Your task to perform on an android device: turn off sleep mode Image 0: 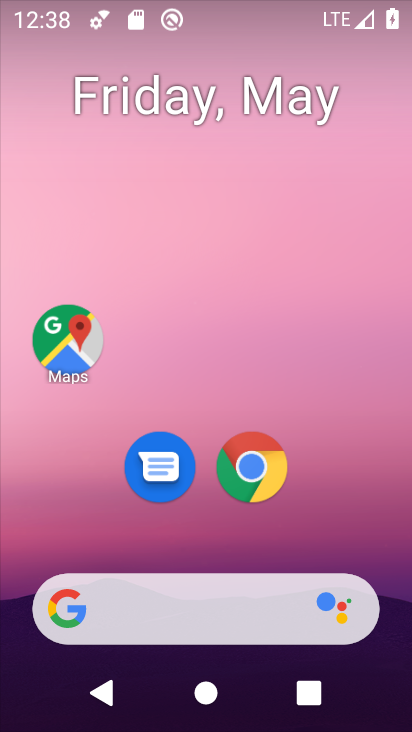
Step 0: click (372, 356)
Your task to perform on an android device: turn off sleep mode Image 1: 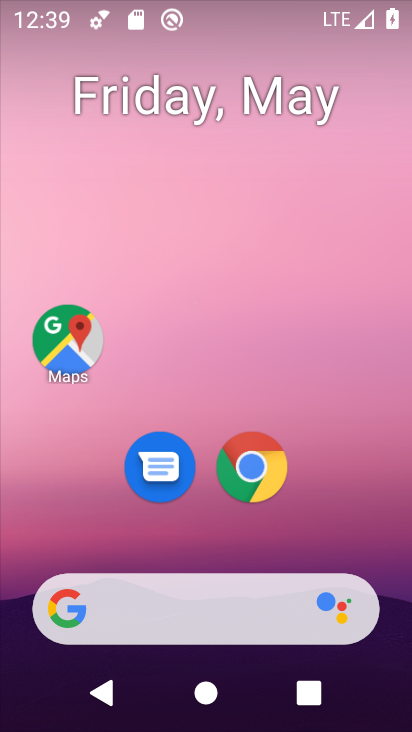
Step 1: drag from (364, 527) to (348, 12)
Your task to perform on an android device: turn off sleep mode Image 2: 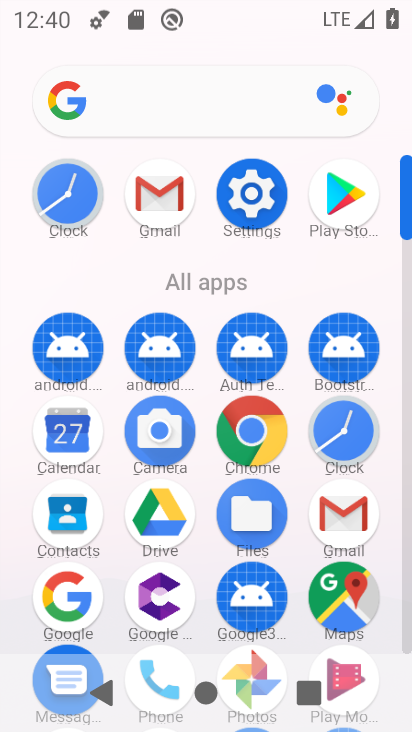
Step 2: click (244, 209)
Your task to perform on an android device: turn off sleep mode Image 3: 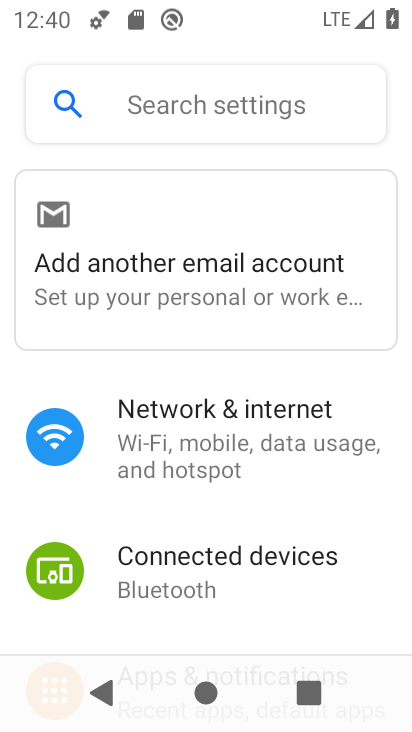
Step 3: drag from (278, 494) to (305, 182)
Your task to perform on an android device: turn off sleep mode Image 4: 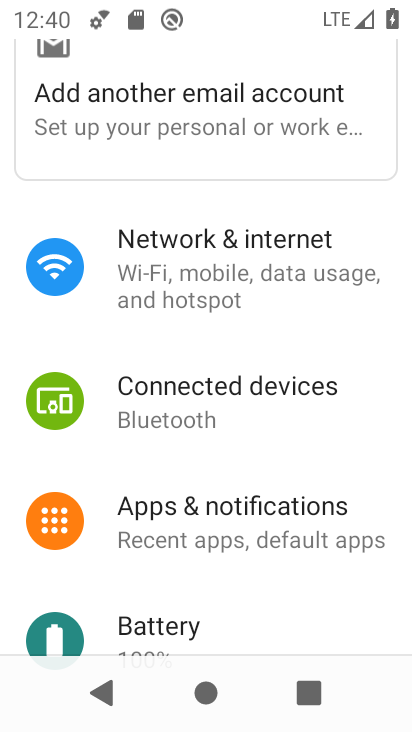
Step 4: drag from (204, 558) to (214, 148)
Your task to perform on an android device: turn off sleep mode Image 5: 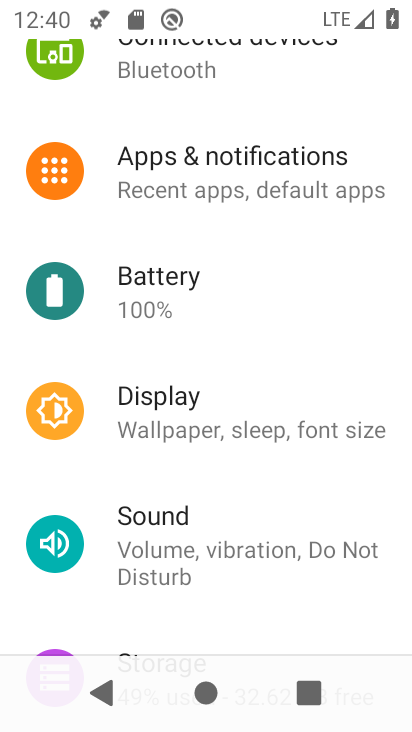
Step 5: drag from (205, 582) to (230, 358)
Your task to perform on an android device: turn off sleep mode Image 6: 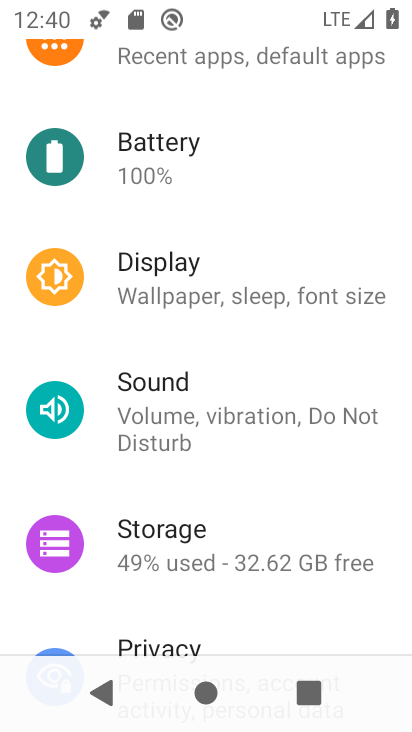
Step 6: drag from (225, 582) to (237, 244)
Your task to perform on an android device: turn off sleep mode Image 7: 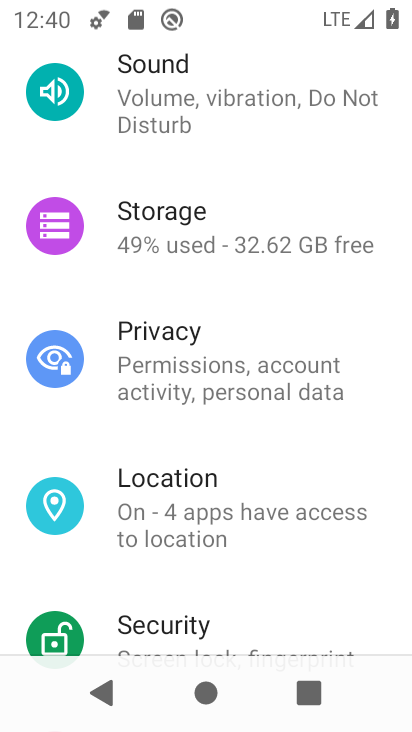
Step 7: drag from (225, 311) to (213, 579)
Your task to perform on an android device: turn off sleep mode Image 8: 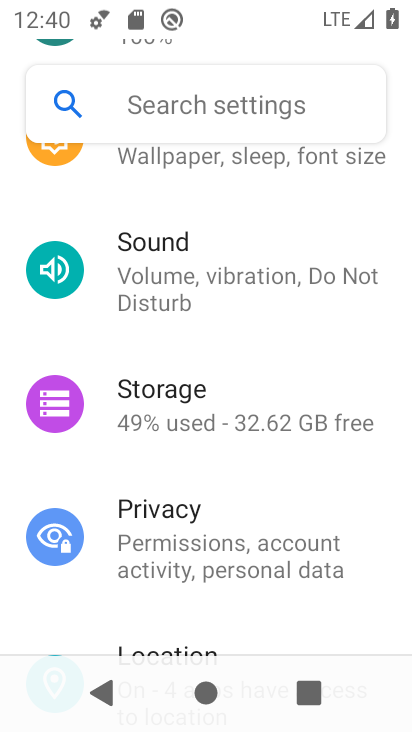
Step 8: drag from (266, 587) to (283, 175)
Your task to perform on an android device: turn off sleep mode Image 9: 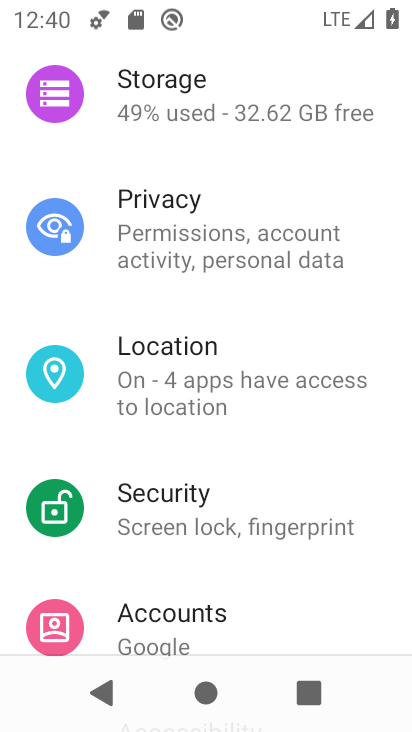
Step 9: drag from (243, 590) to (248, 203)
Your task to perform on an android device: turn off sleep mode Image 10: 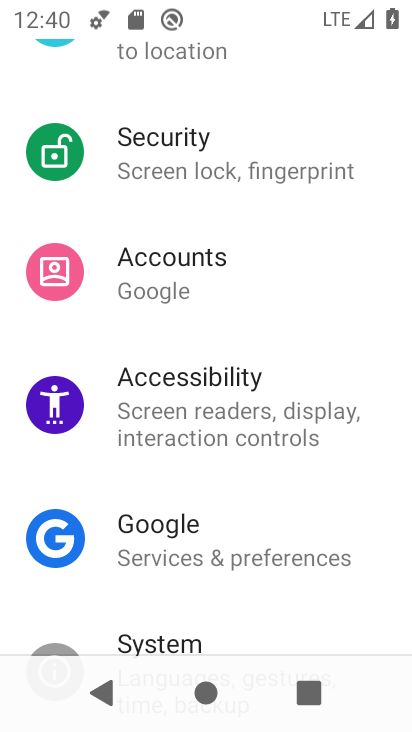
Step 10: drag from (283, 163) to (309, 532)
Your task to perform on an android device: turn off sleep mode Image 11: 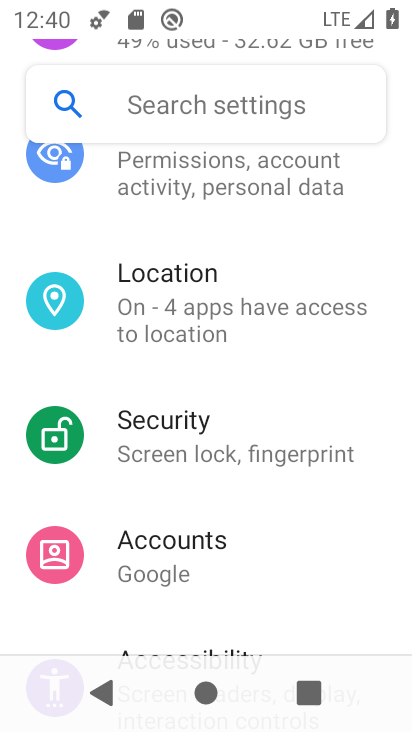
Step 11: drag from (239, 266) to (230, 570)
Your task to perform on an android device: turn off sleep mode Image 12: 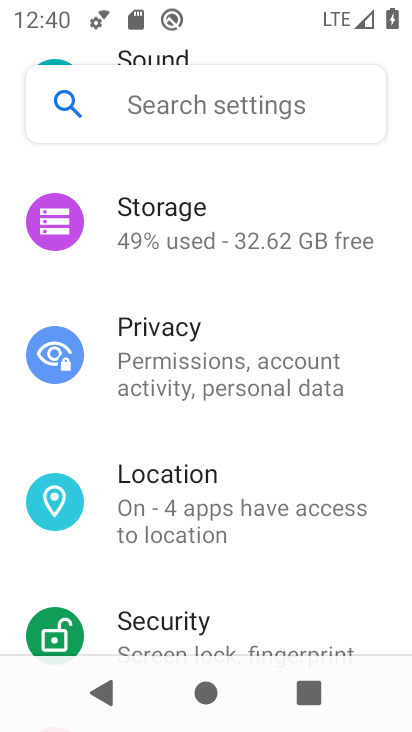
Step 12: drag from (237, 224) to (249, 603)
Your task to perform on an android device: turn off sleep mode Image 13: 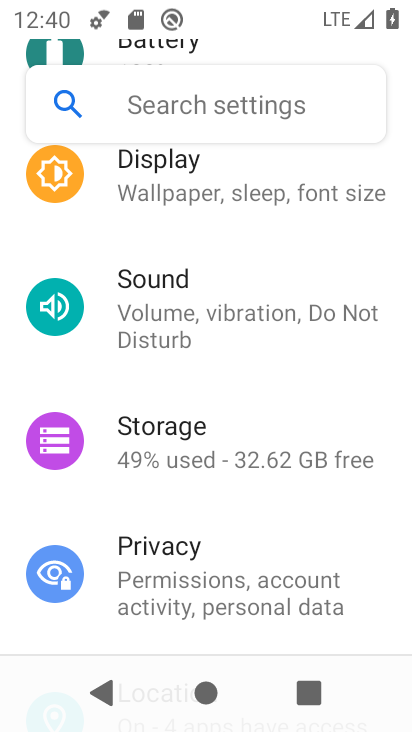
Step 13: drag from (216, 218) to (189, 487)
Your task to perform on an android device: turn off sleep mode Image 14: 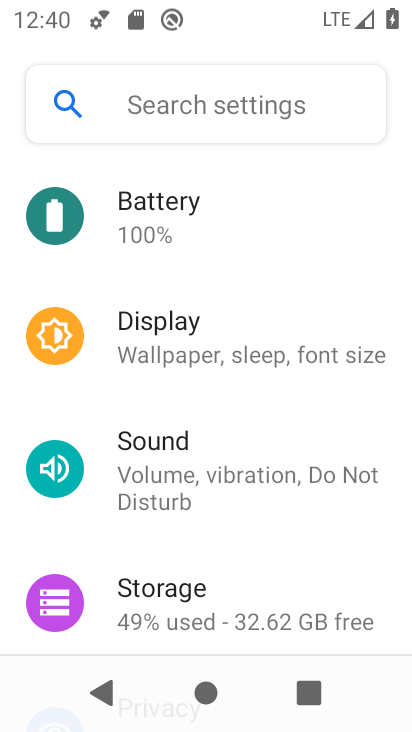
Step 14: click (219, 342)
Your task to perform on an android device: turn off sleep mode Image 15: 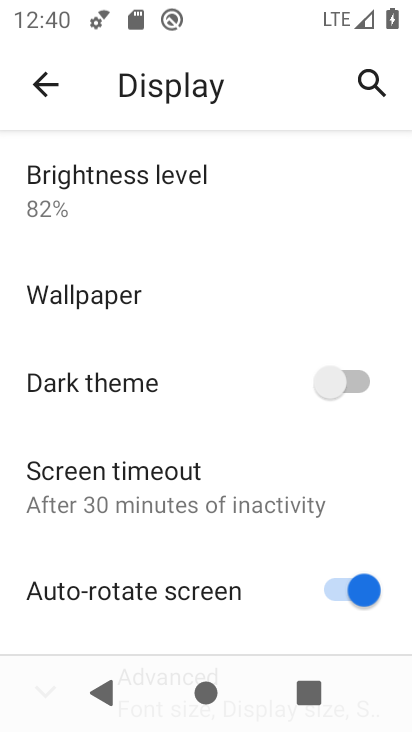
Step 15: click (147, 505)
Your task to perform on an android device: turn off sleep mode Image 16: 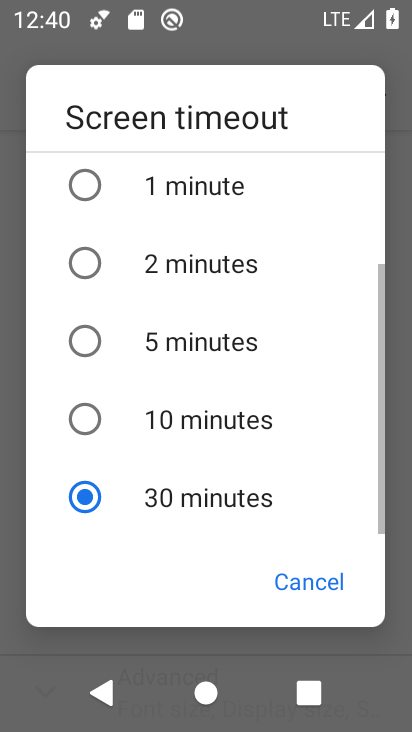
Step 16: task complete